Your task to perform on an android device: Open Maps and search for coffee Image 0: 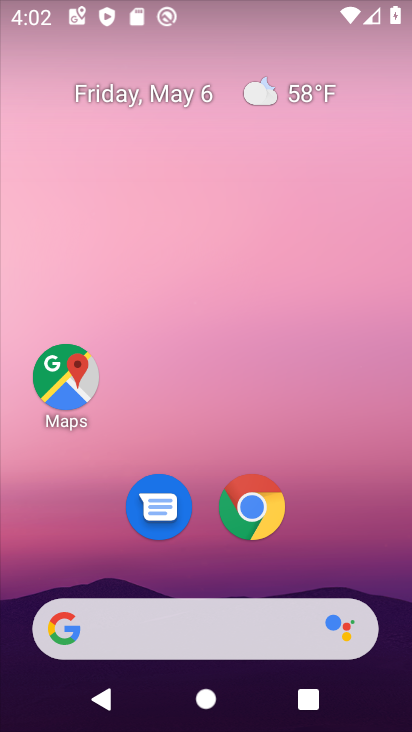
Step 0: click (63, 381)
Your task to perform on an android device: Open Maps and search for coffee Image 1: 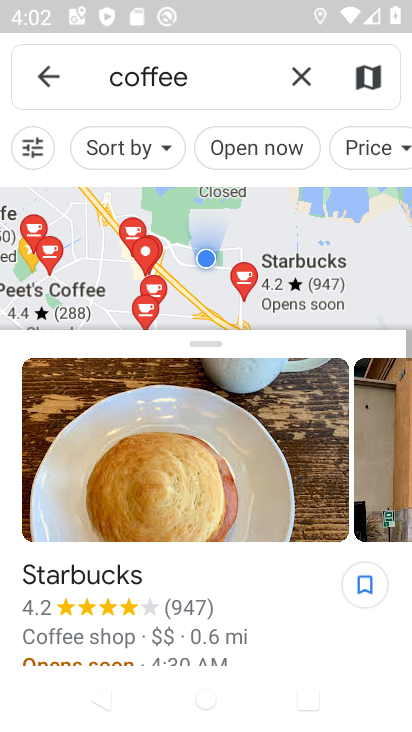
Step 1: task complete